Your task to perform on an android device: Go to CNN.com Image 0: 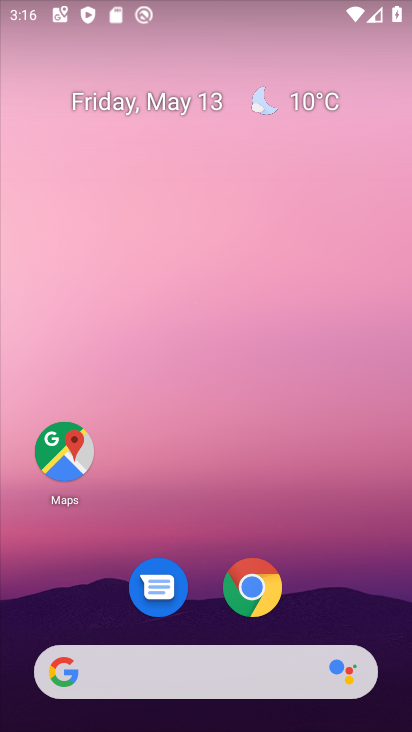
Step 0: click (235, 589)
Your task to perform on an android device: Go to CNN.com Image 1: 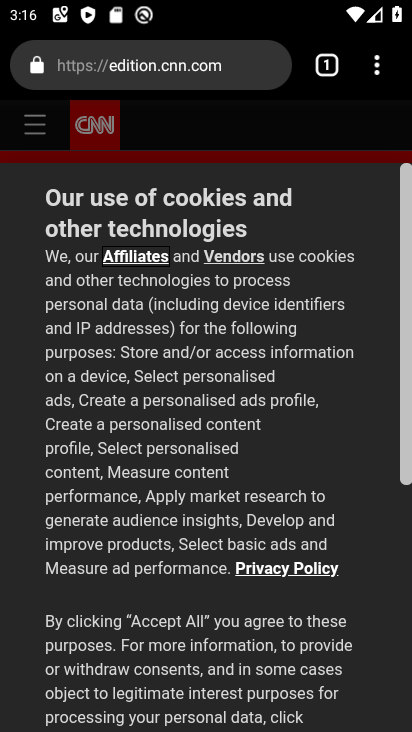
Step 1: task complete